Your task to perform on an android device: Open Chrome and go to settings Image 0: 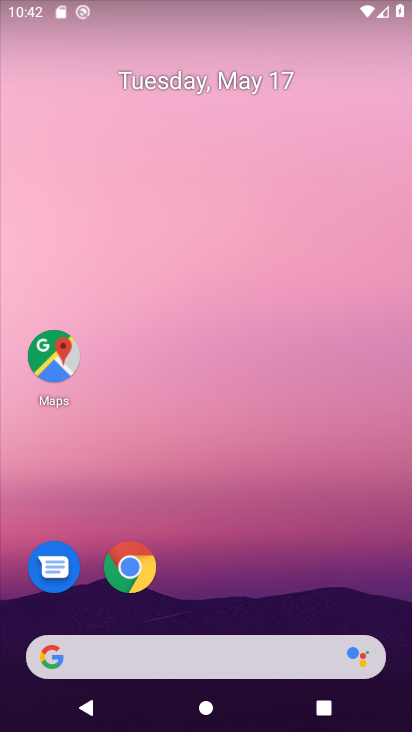
Step 0: click (128, 570)
Your task to perform on an android device: Open Chrome and go to settings Image 1: 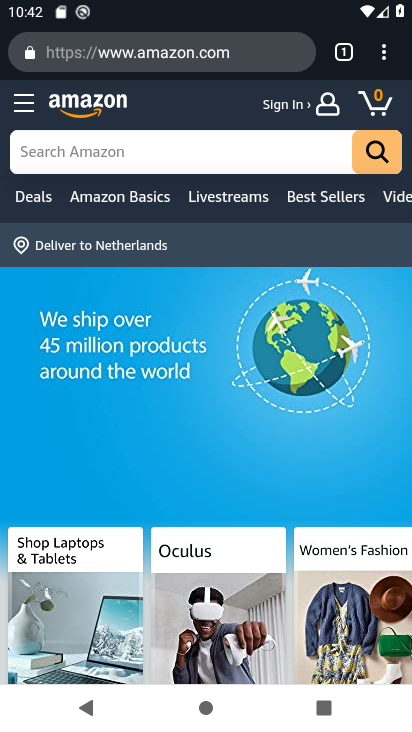
Step 1: task complete